Your task to perform on an android device: Go to eBay Image 0: 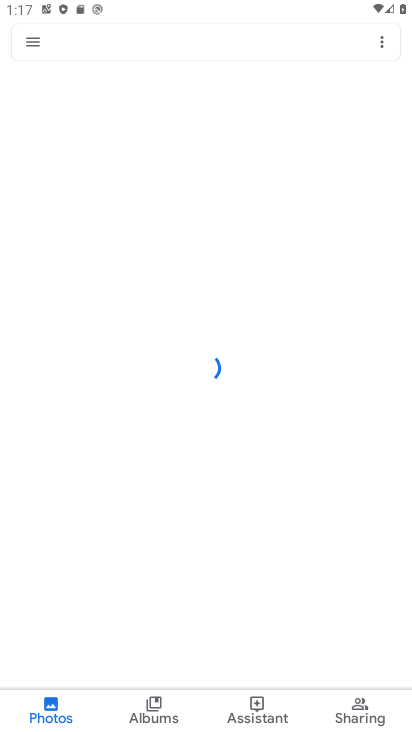
Step 0: press home button
Your task to perform on an android device: Go to eBay Image 1: 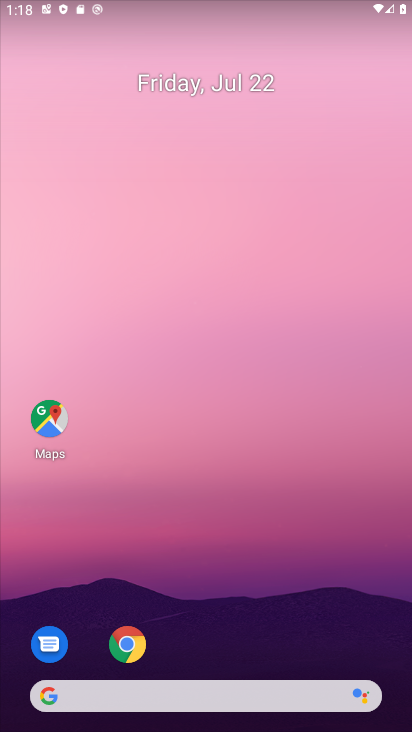
Step 1: drag from (230, 657) to (225, 60)
Your task to perform on an android device: Go to eBay Image 2: 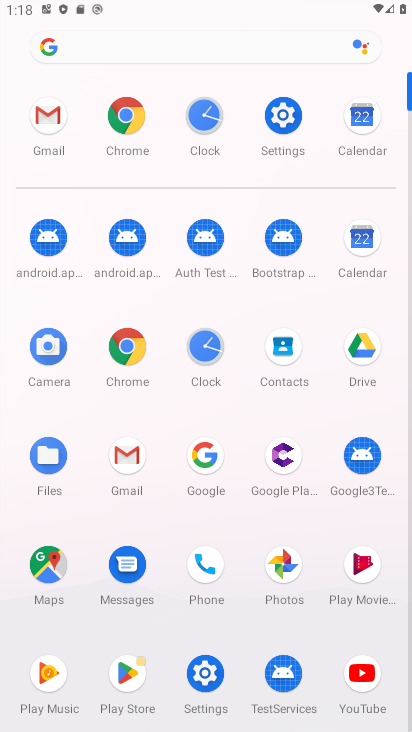
Step 2: click (125, 113)
Your task to perform on an android device: Go to eBay Image 3: 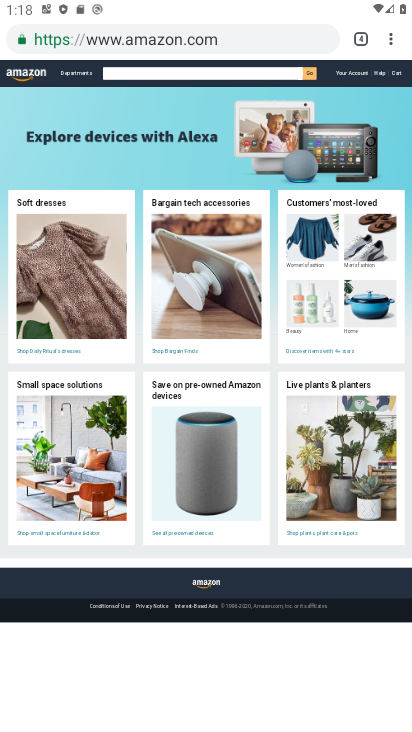
Step 3: click (359, 40)
Your task to perform on an android device: Go to eBay Image 4: 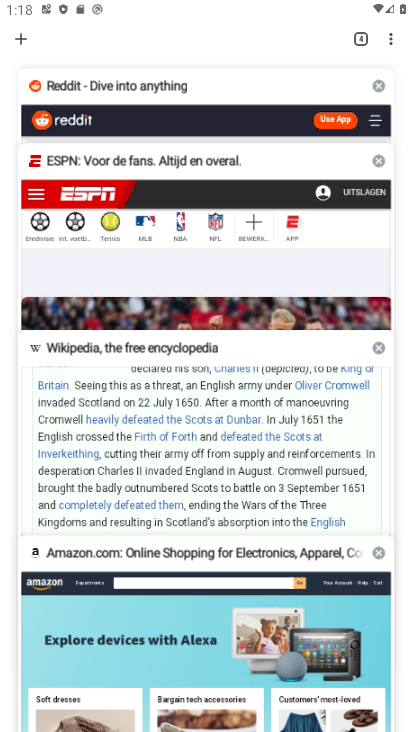
Step 4: click (26, 36)
Your task to perform on an android device: Go to eBay Image 5: 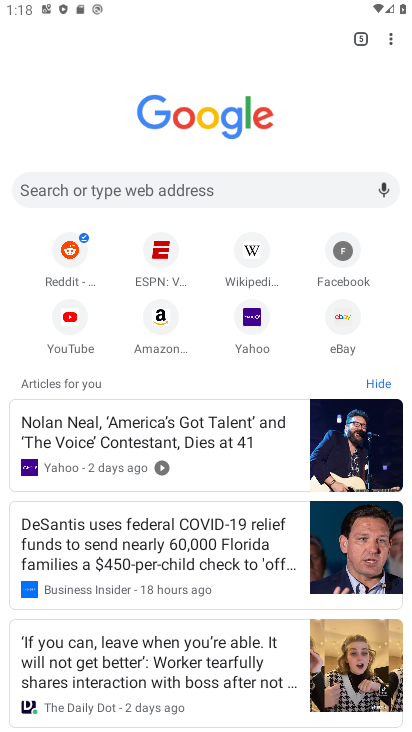
Step 5: click (336, 322)
Your task to perform on an android device: Go to eBay Image 6: 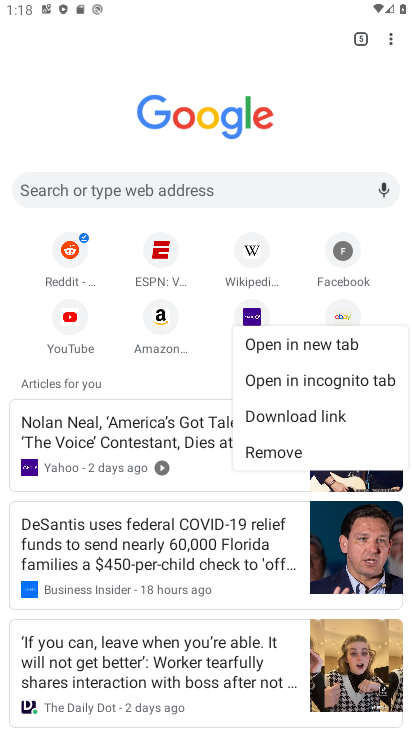
Step 6: click (347, 311)
Your task to perform on an android device: Go to eBay Image 7: 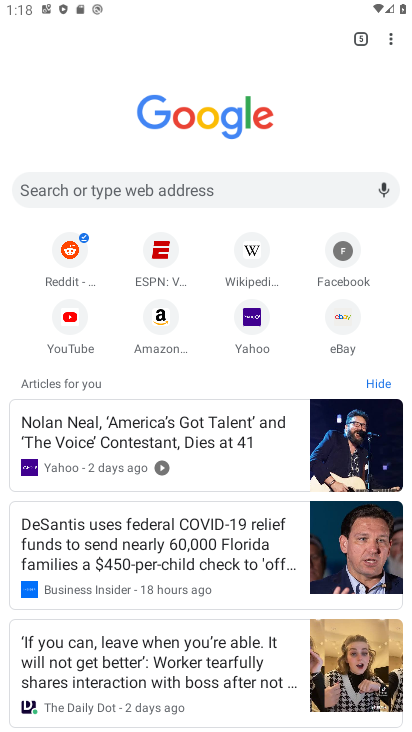
Step 7: click (337, 315)
Your task to perform on an android device: Go to eBay Image 8: 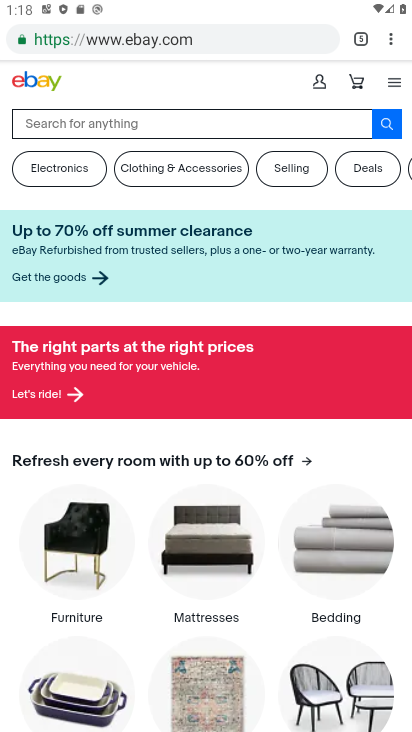
Step 8: task complete